Your task to perform on an android device: Go to Maps Image 0: 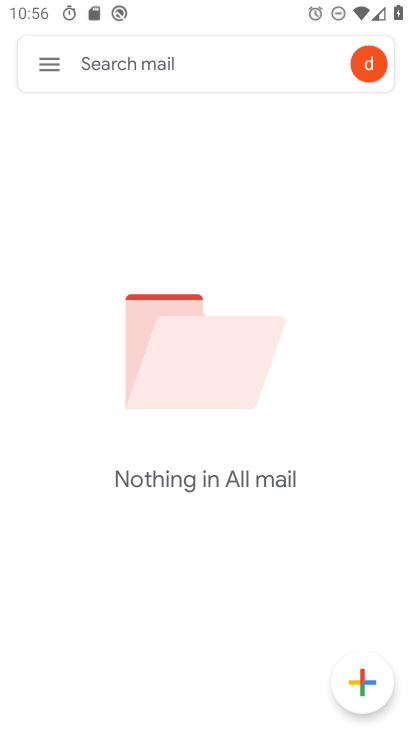
Step 0: press home button
Your task to perform on an android device: Go to Maps Image 1: 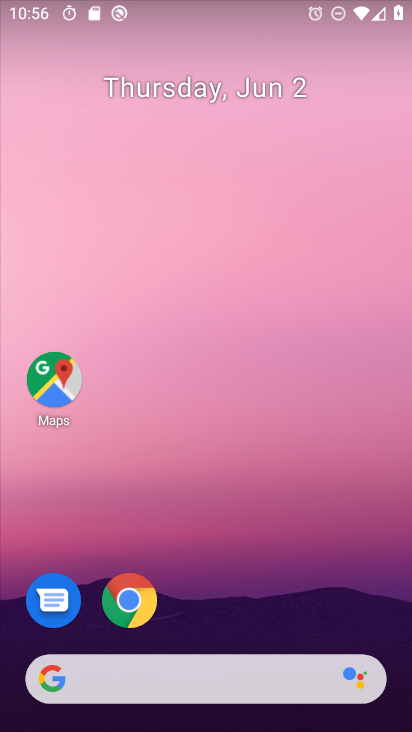
Step 1: click (60, 383)
Your task to perform on an android device: Go to Maps Image 2: 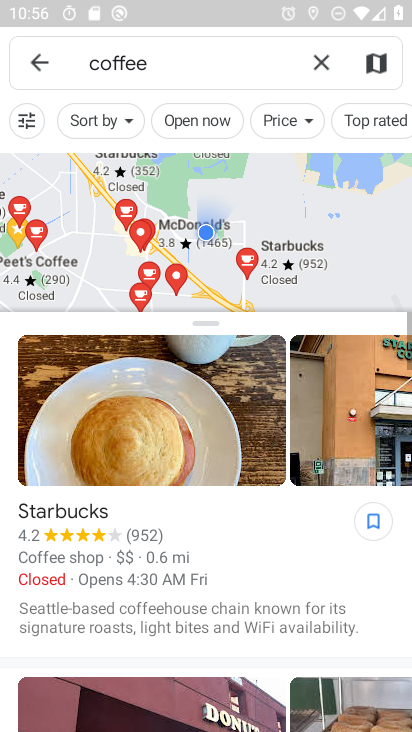
Step 2: task complete